Your task to perform on an android device: check the backup settings in the google photos Image 0: 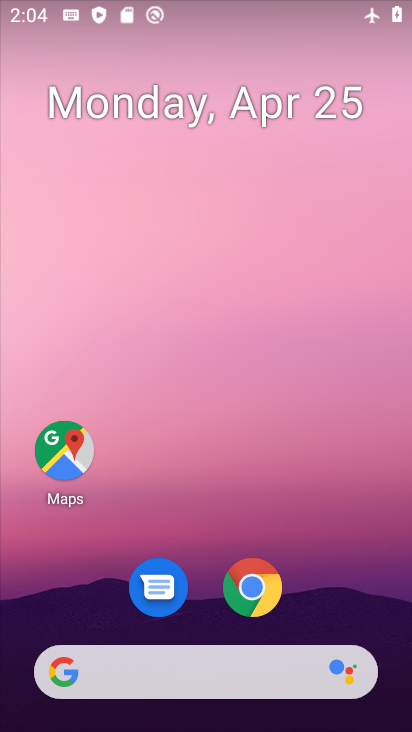
Step 0: drag from (351, 375) to (348, 79)
Your task to perform on an android device: check the backup settings in the google photos Image 1: 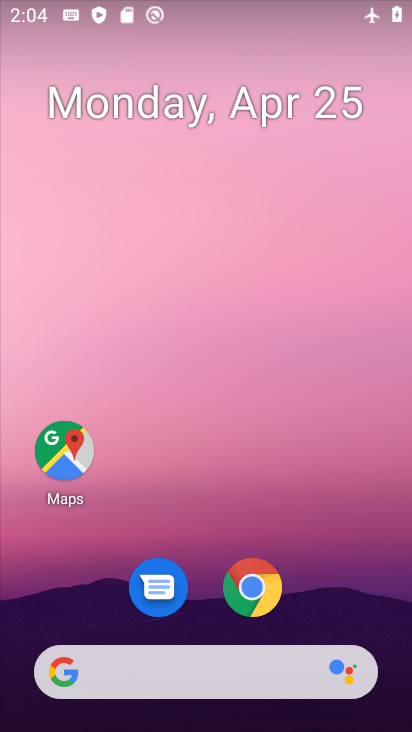
Step 1: drag from (361, 512) to (312, 26)
Your task to perform on an android device: check the backup settings in the google photos Image 2: 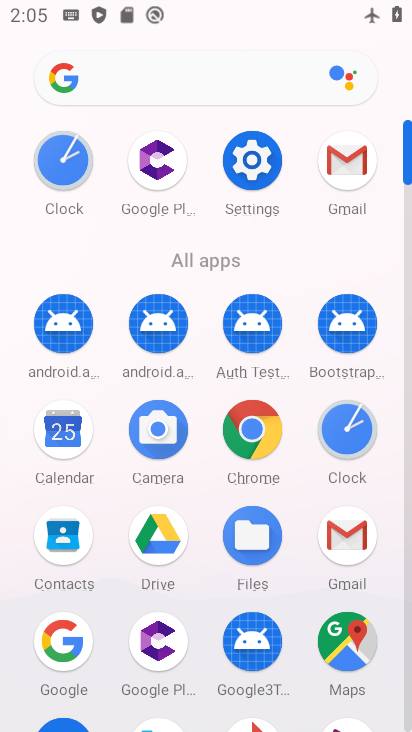
Step 2: drag from (299, 597) to (309, 132)
Your task to perform on an android device: check the backup settings in the google photos Image 3: 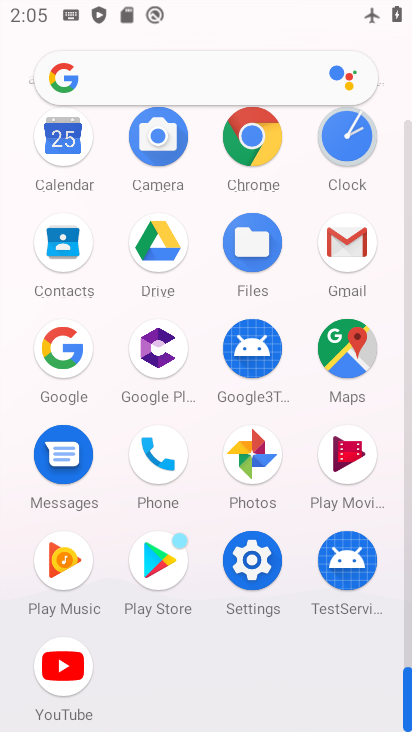
Step 3: click (259, 457)
Your task to perform on an android device: check the backup settings in the google photos Image 4: 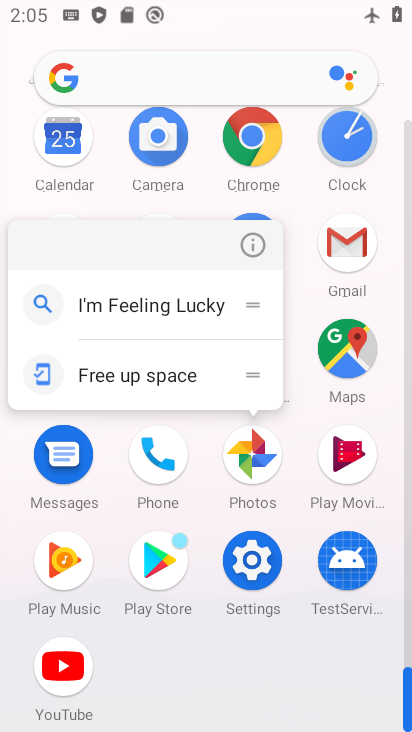
Step 4: click (237, 463)
Your task to perform on an android device: check the backup settings in the google photos Image 5: 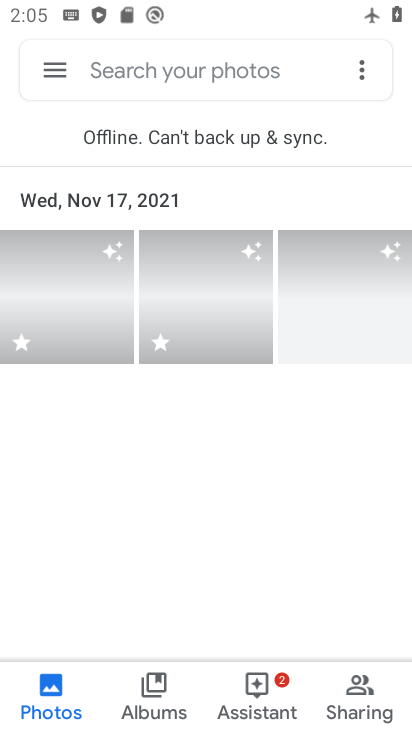
Step 5: click (58, 71)
Your task to perform on an android device: check the backup settings in the google photos Image 6: 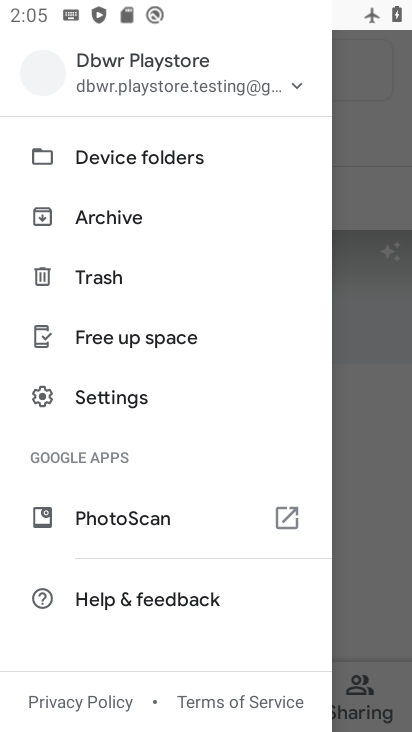
Step 6: drag from (149, 547) to (205, 135)
Your task to perform on an android device: check the backup settings in the google photos Image 7: 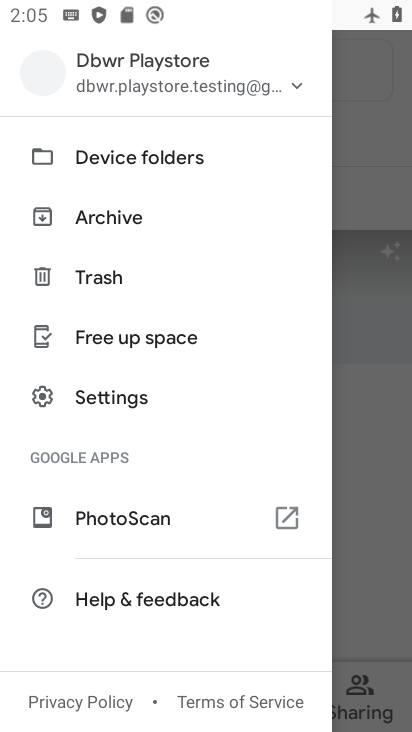
Step 7: click (87, 401)
Your task to perform on an android device: check the backup settings in the google photos Image 8: 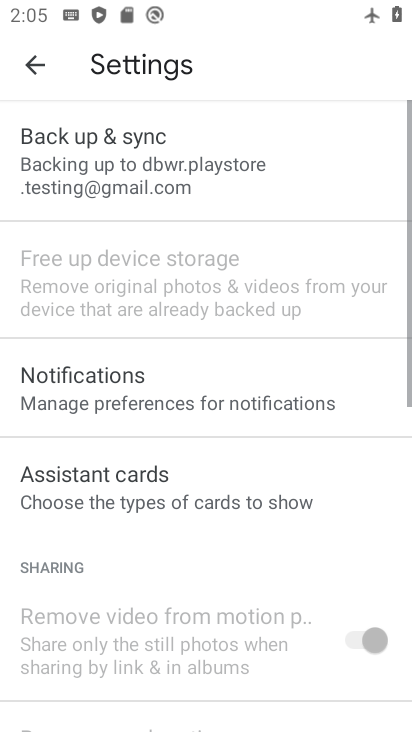
Step 8: click (274, 156)
Your task to perform on an android device: check the backup settings in the google photos Image 9: 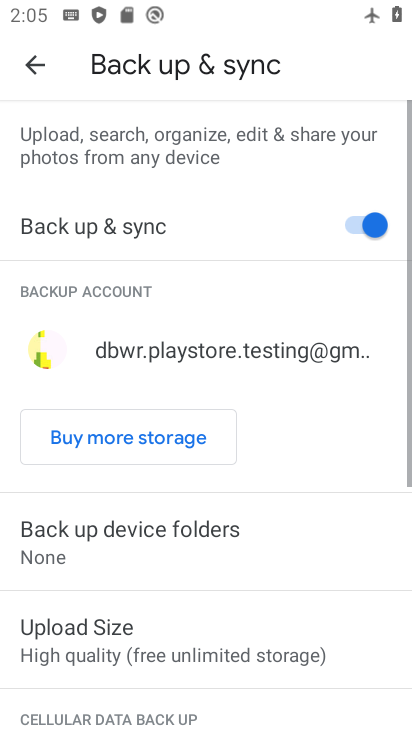
Step 9: task complete